Your task to perform on an android device: open app "Microsoft Authenticator" (install if not already installed), go to login, and select forgot password Image 0: 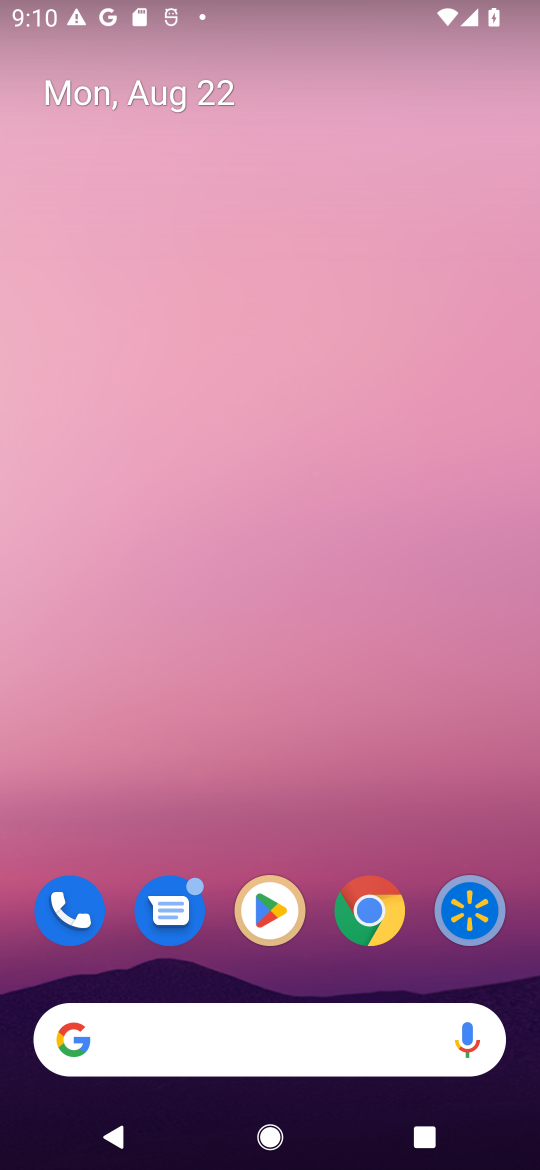
Step 0: click (278, 909)
Your task to perform on an android device: open app "Microsoft Authenticator" (install if not already installed), go to login, and select forgot password Image 1: 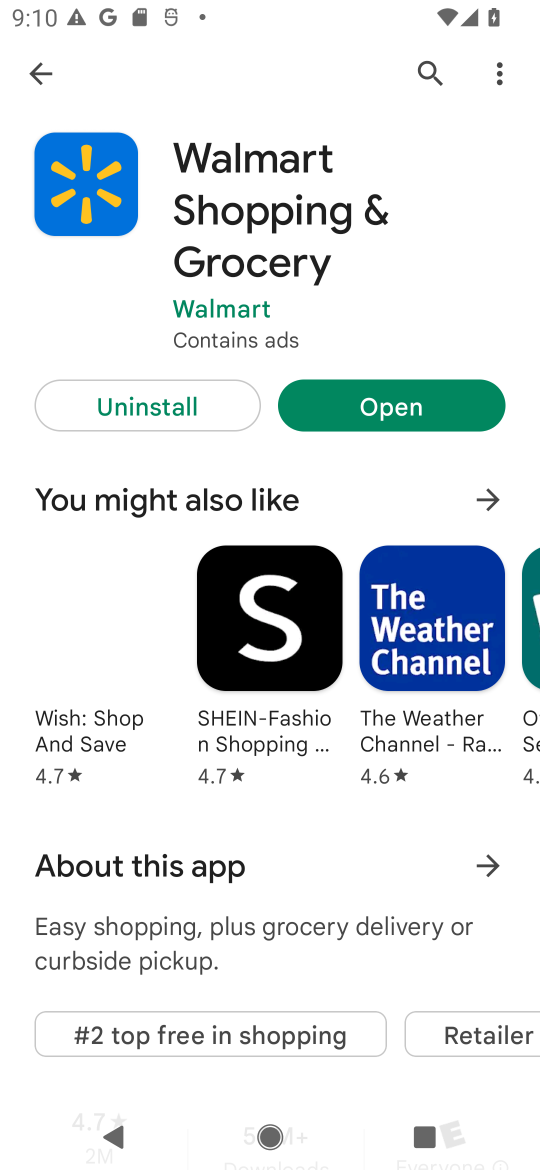
Step 1: click (424, 59)
Your task to perform on an android device: open app "Microsoft Authenticator" (install if not already installed), go to login, and select forgot password Image 2: 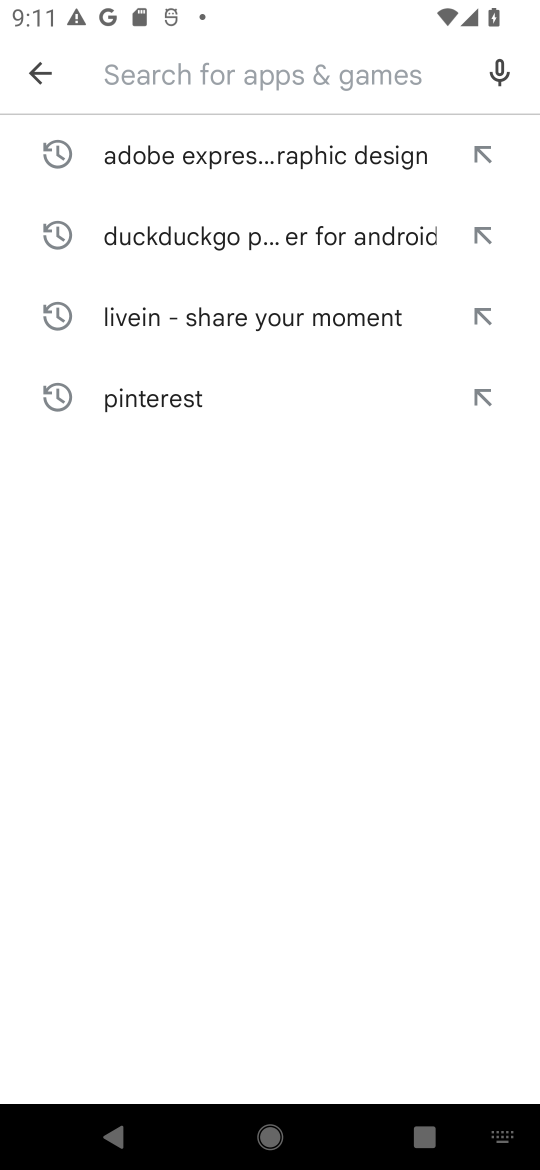
Step 2: type "Microsoft Authenticator"
Your task to perform on an android device: open app "Microsoft Authenticator" (install if not already installed), go to login, and select forgot password Image 3: 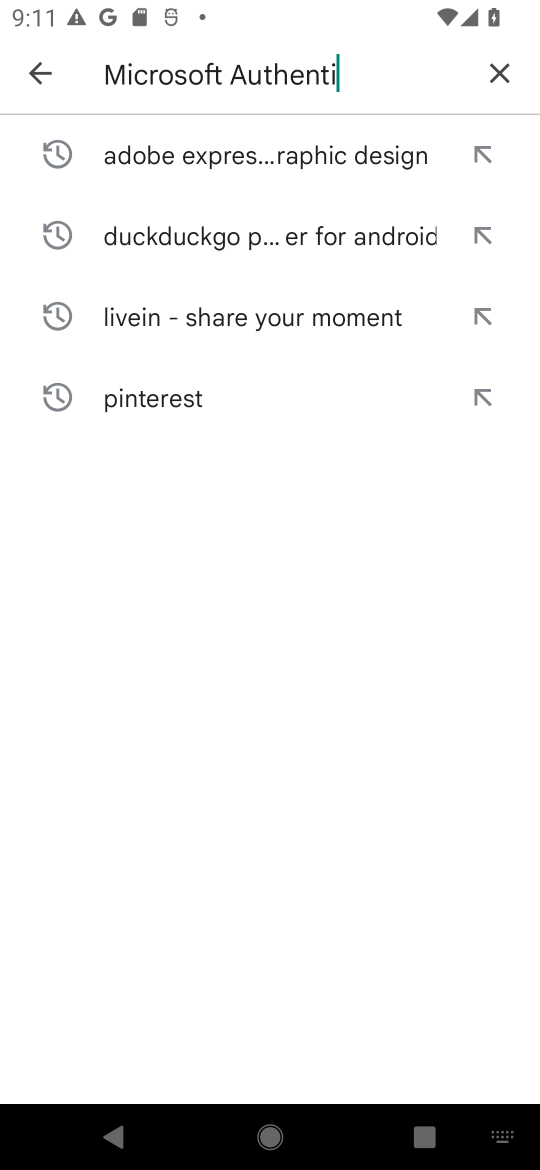
Step 3: type ""
Your task to perform on an android device: open app "Microsoft Authenticator" (install if not already installed), go to login, and select forgot password Image 4: 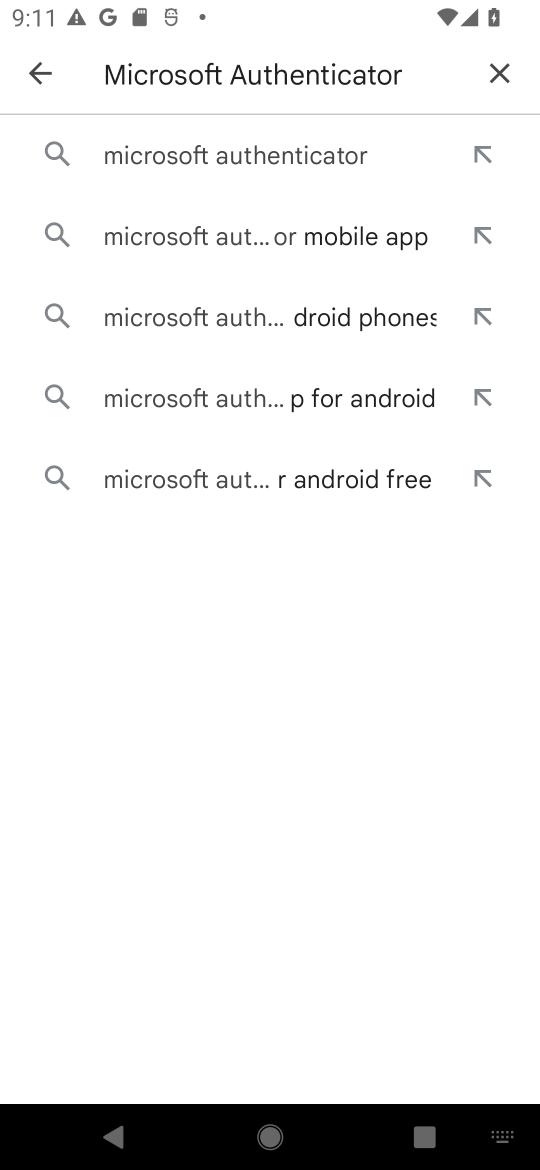
Step 4: click (231, 149)
Your task to perform on an android device: open app "Microsoft Authenticator" (install if not already installed), go to login, and select forgot password Image 5: 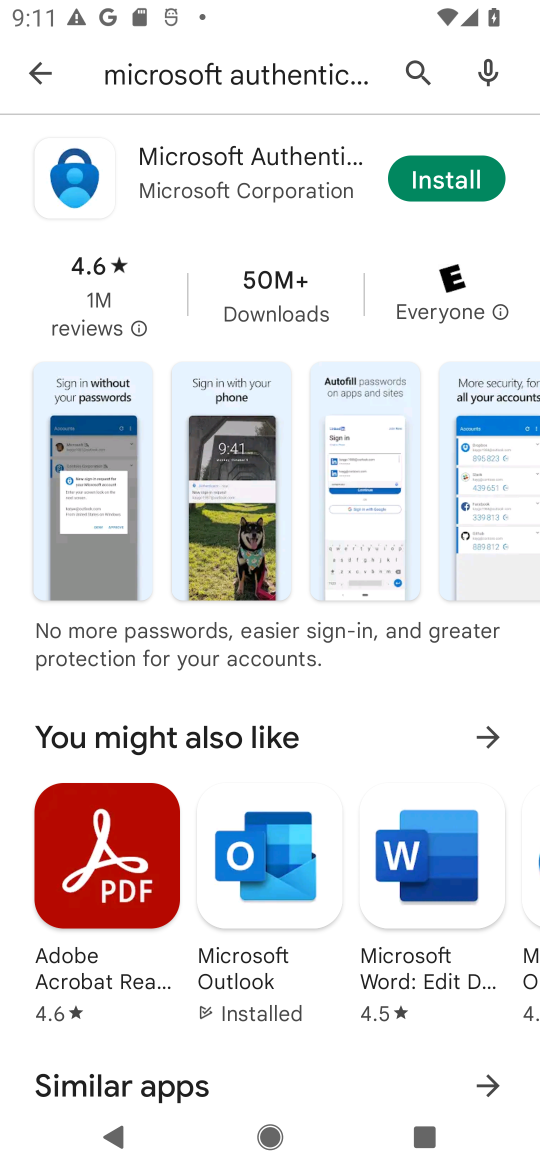
Step 5: click (449, 178)
Your task to perform on an android device: open app "Microsoft Authenticator" (install if not already installed), go to login, and select forgot password Image 6: 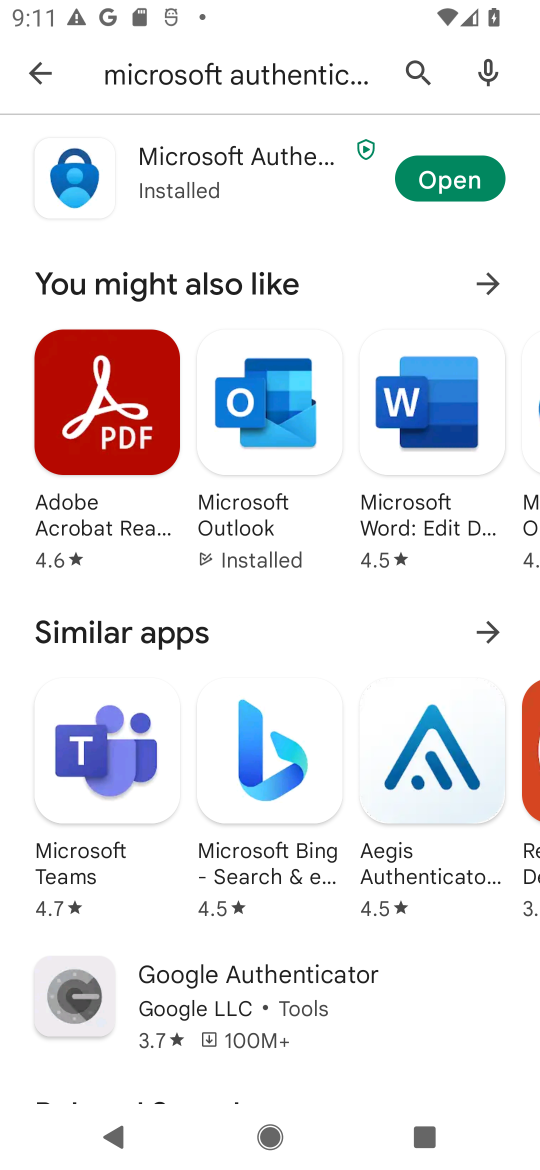
Step 6: click (449, 178)
Your task to perform on an android device: open app "Microsoft Authenticator" (install if not already installed), go to login, and select forgot password Image 7: 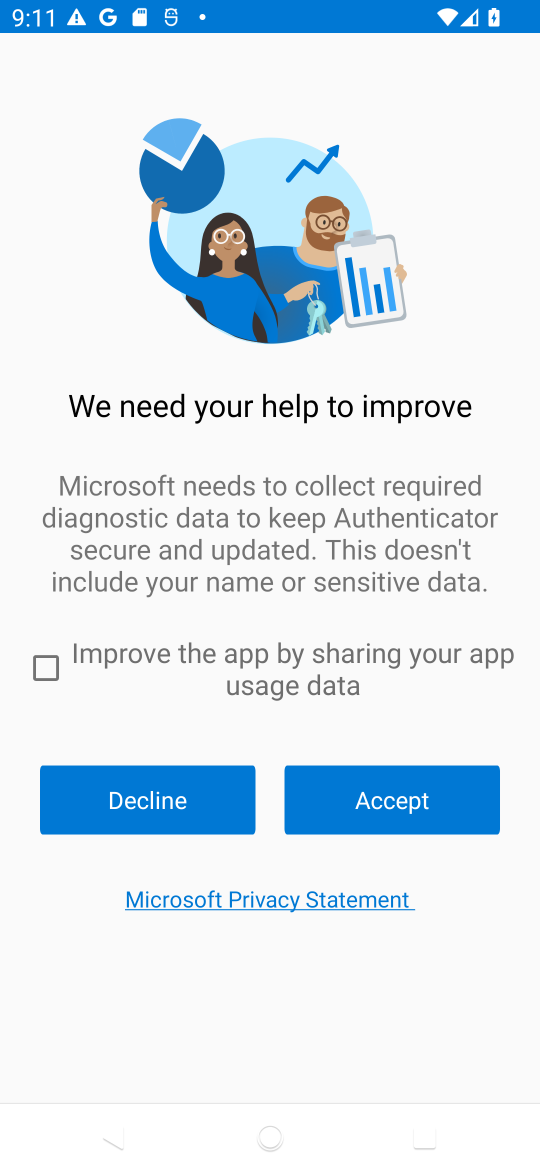
Step 7: task complete